Your task to perform on an android device: refresh tabs in the chrome app Image 0: 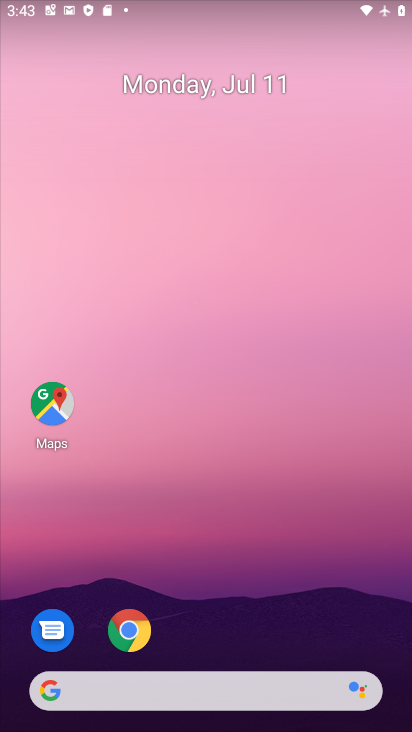
Step 0: drag from (232, 175) to (233, 70)
Your task to perform on an android device: refresh tabs in the chrome app Image 1: 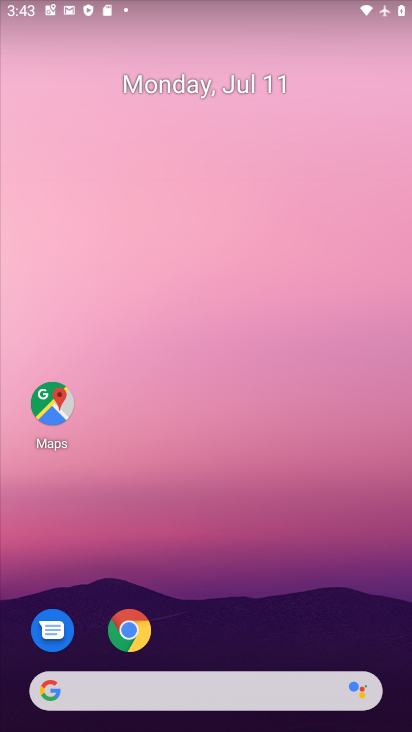
Step 1: drag from (231, 466) to (227, 382)
Your task to perform on an android device: refresh tabs in the chrome app Image 2: 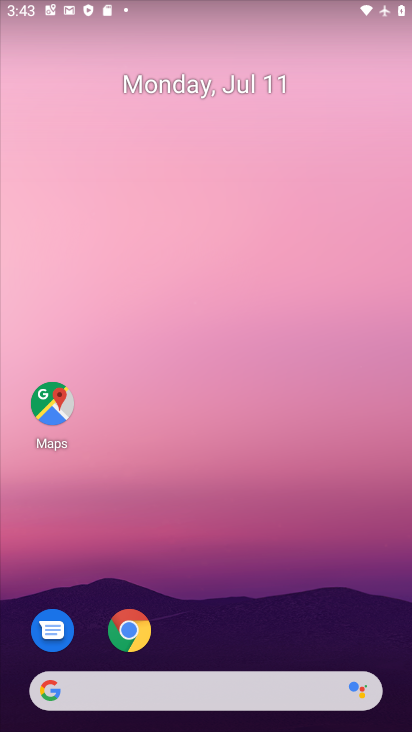
Step 2: drag from (243, 622) to (161, 91)
Your task to perform on an android device: refresh tabs in the chrome app Image 3: 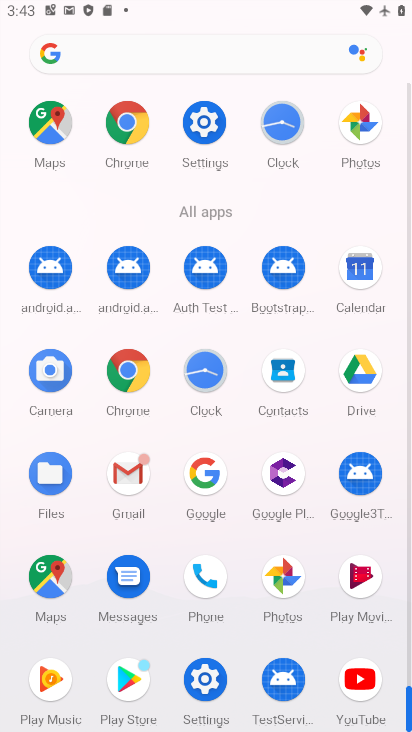
Step 3: click (129, 126)
Your task to perform on an android device: refresh tabs in the chrome app Image 4: 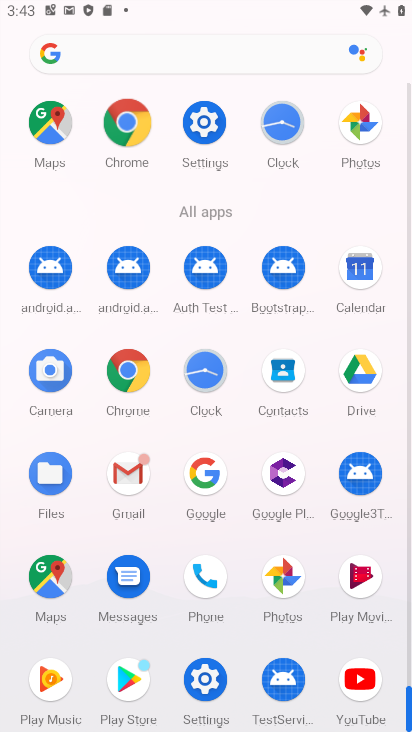
Step 4: click (129, 122)
Your task to perform on an android device: refresh tabs in the chrome app Image 5: 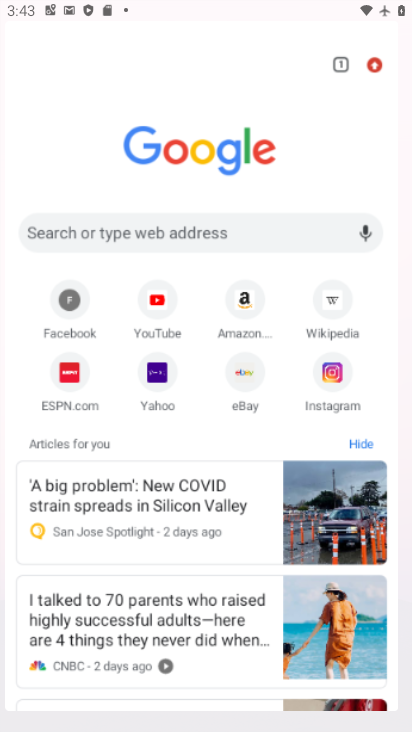
Step 5: click (132, 121)
Your task to perform on an android device: refresh tabs in the chrome app Image 6: 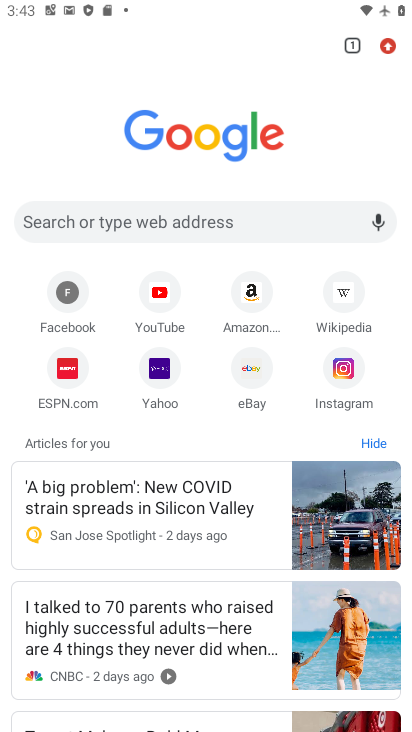
Step 6: drag from (382, 43) to (320, 616)
Your task to perform on an android device: refresh tabs in the chrome app Image 7: 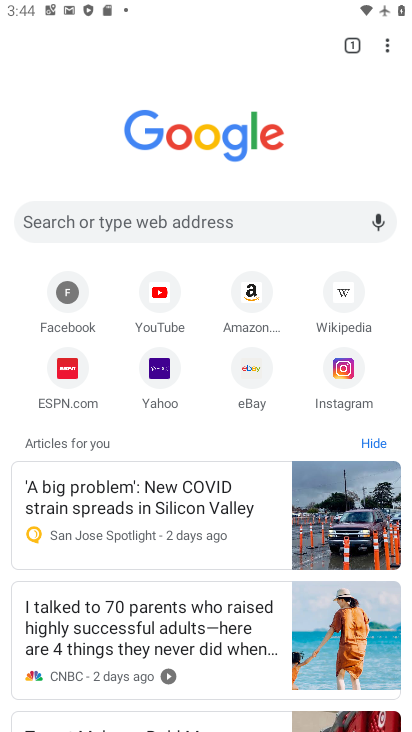
Step 7: click (385, 46)
Your task to perform on an android device: refresh tabs in the chrome app Image 8: 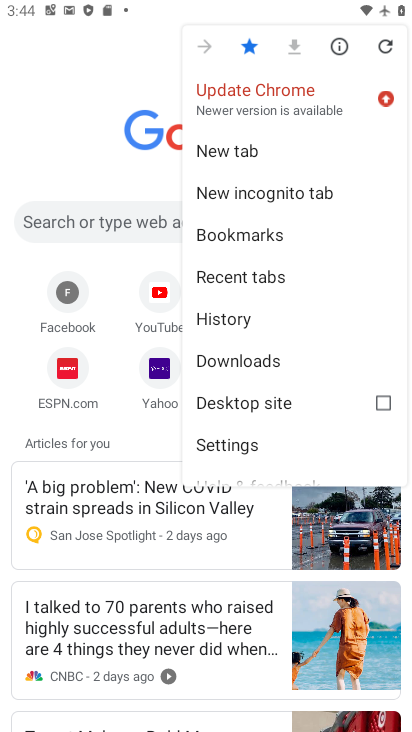
Step 8: click (225, 152)
Your task to perform on an android device: refresh tabs in the chrome app Image 9: 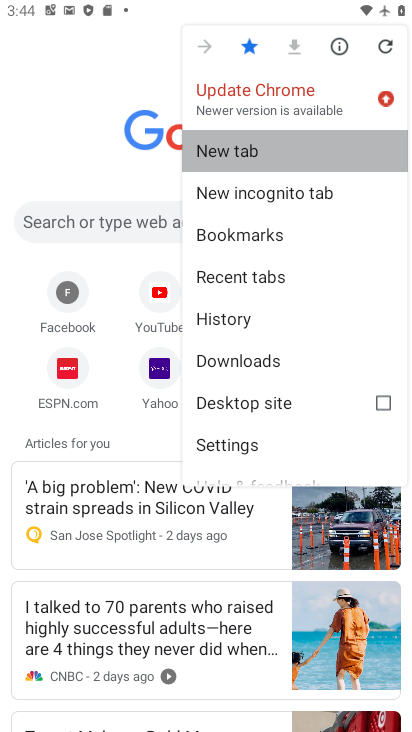
Step 9: click (225, 152)
Your task to perform on an android device: refresh tabs in the chrome app Image 10: 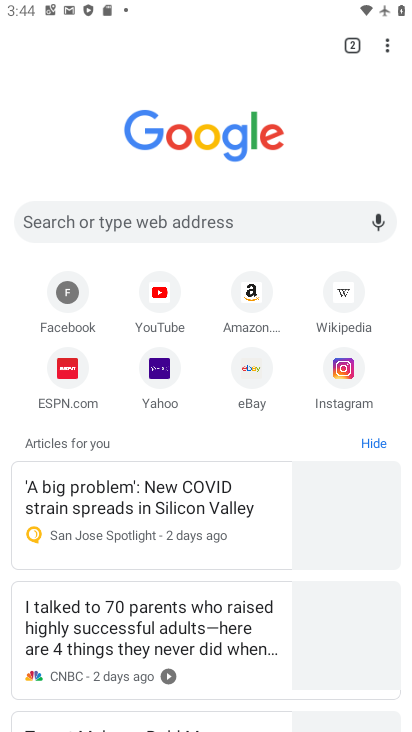
Step 10: click (225, 151)
Your task to perform on an android device: refresh tabs in the chrome app Image 11: 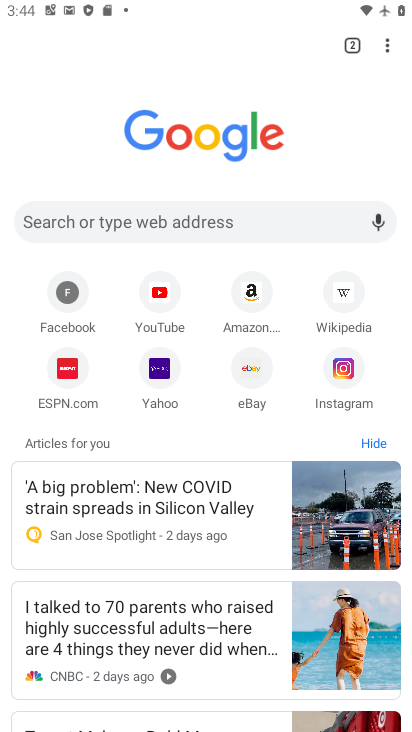
Step 11: task complete